Your task to perform on an android device: change the upload size in google photos Image 0: 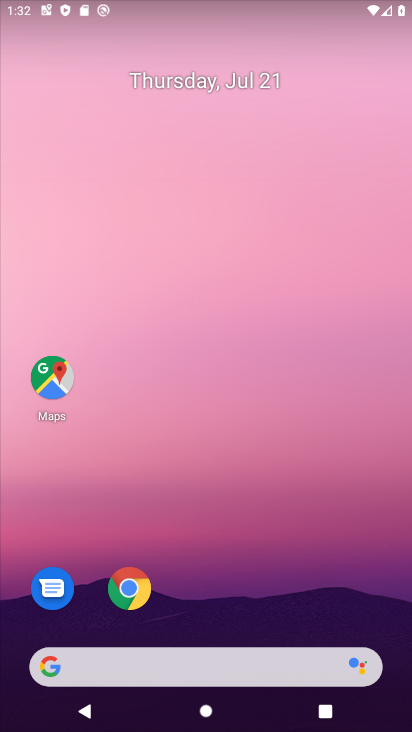
Step 0: drag from (306, 609) to (157, 31)
Your task to perform on an android device: change the upload size in google photos Image 1: 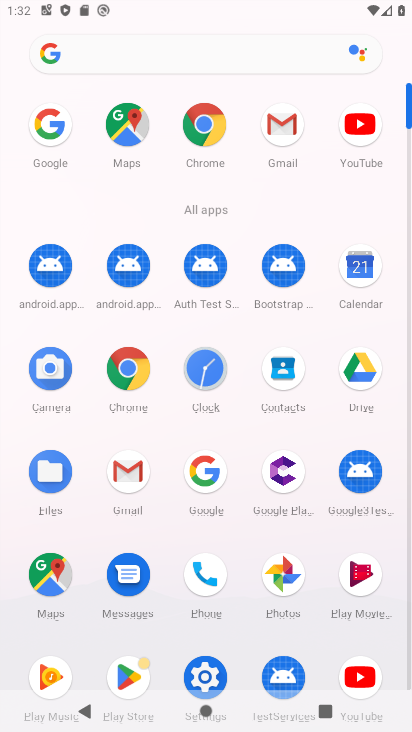
Step 1: click (287, 577)
Your task to perform on an android device: change the upload size in google photos Image 2: 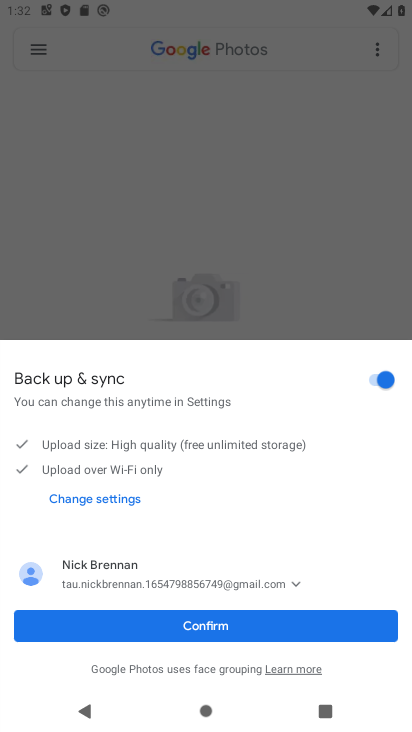
Step 2: click (327, 613)
Your task to perform on an android device: change the upload size in google photos Image 3: 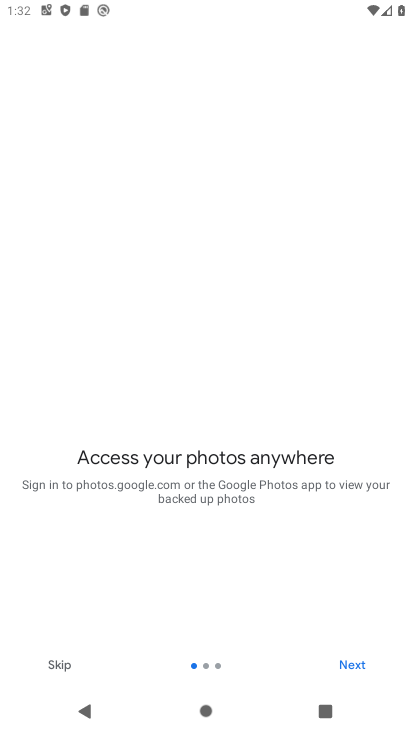
Step 3: click (350, 656)
Your task to perform on an android device: change the upload size in google photos Image 4: 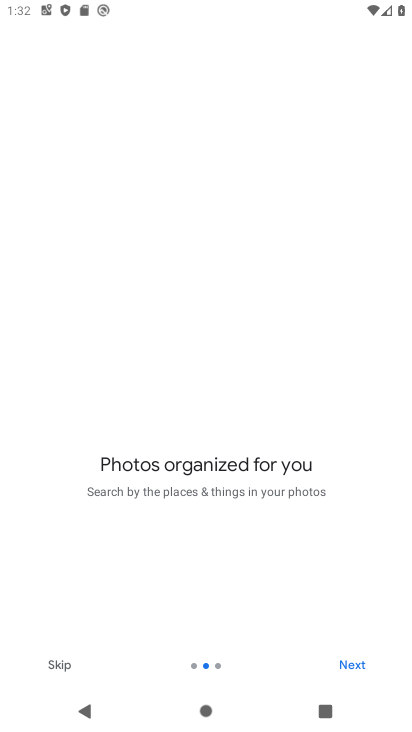
Step 4: click (350, 656)
Your task to perform on an android device: change the upload size in google photos Image 5: 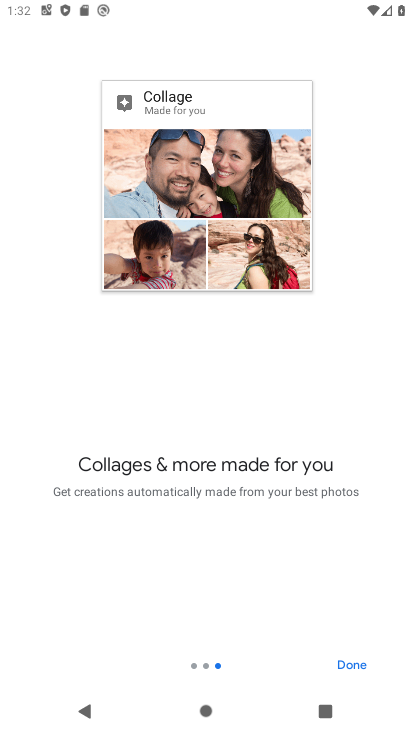
Step 5: click (350, 656)
Your task to perform on an android device: change the upload size in google photos Image 6: 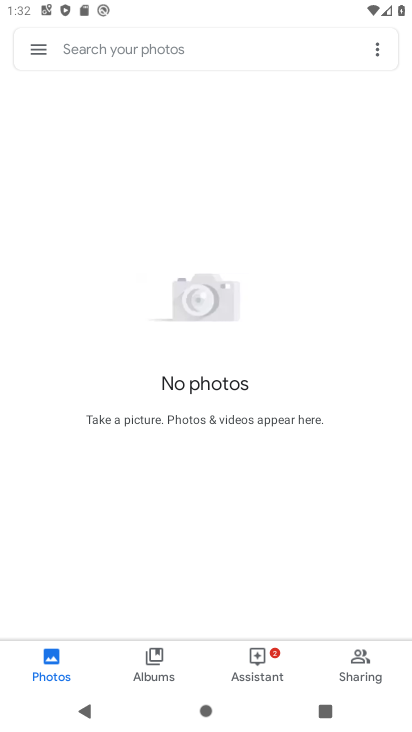
Step 6: click (32, 56)
Your task to perform on an android device: change the upload size in google photos Image 7: 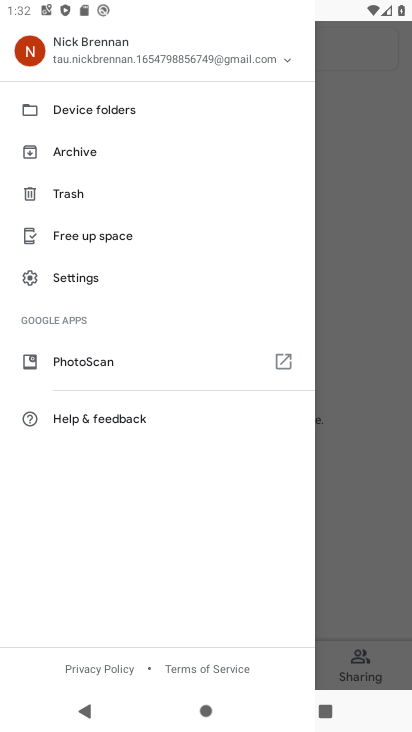
Step 7: click (73, 283)
Your task to perform on an android device: change the upload size in google photos Image 8: 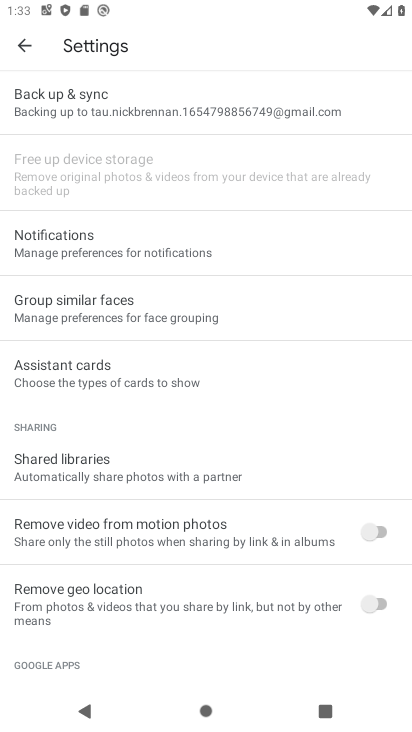
Step 8: click (104, 114)
Your task to perform on an android device: change the upload size in google photos Image 9: 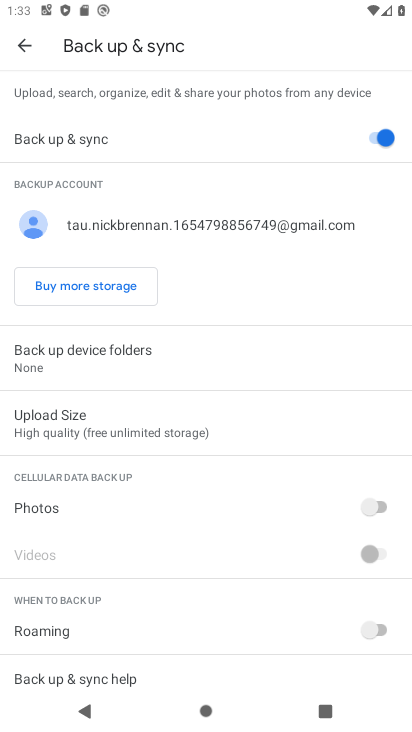
Step 9: click (157, 437)
Your task to perform on an android device: change the upload size in google photos Image 10: 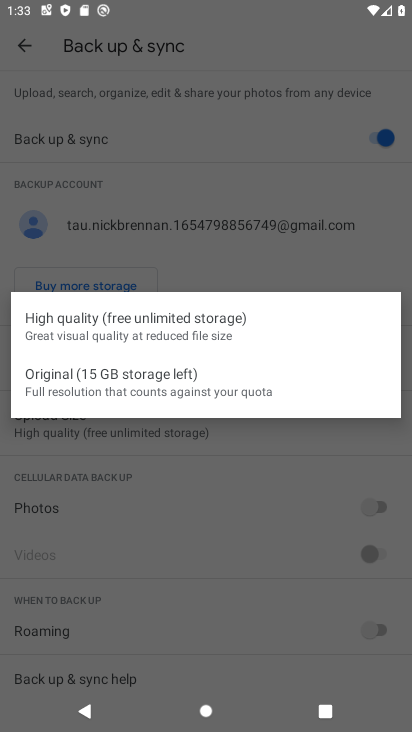
Step 10: click (150, 334)
Your task to perform on an android device: change the upload size in google photos Image 11: 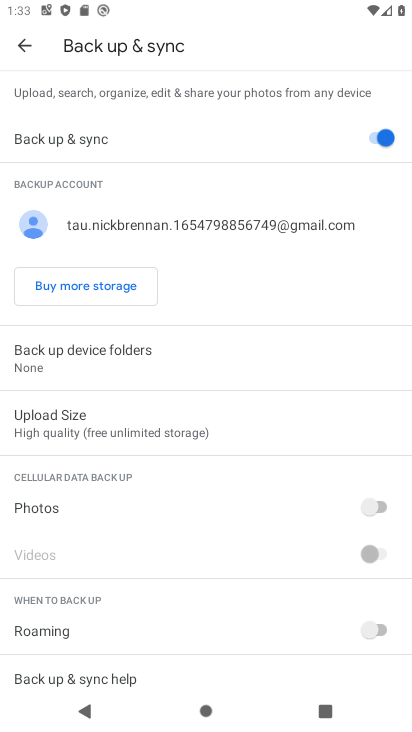
Step 11: task complete